Your task to perform on an android device: Open battery settings Image 0: 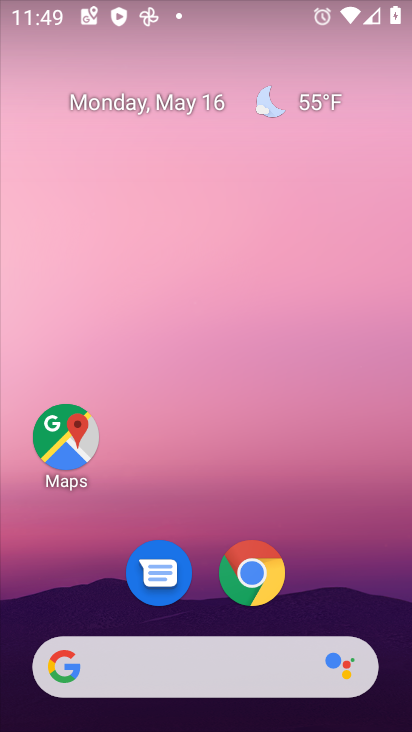
Step 0: drag from (376, 545) to (348, 185)
Your task to perform on an android device: Open battery settings Image 1: 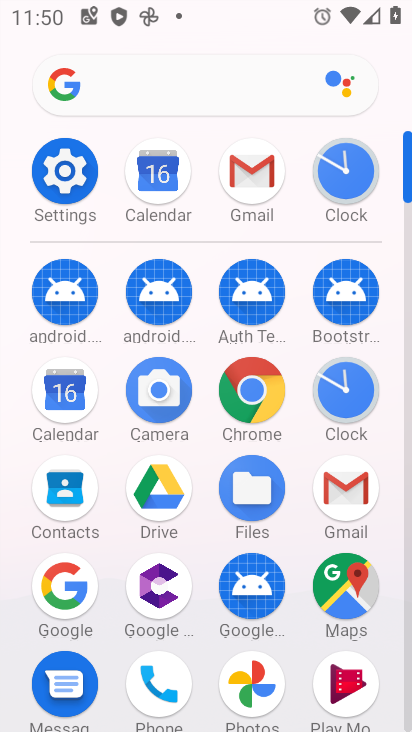
Step 1: click (51, 164)
Your task to perform on an android device: Open battery settings Image 2: 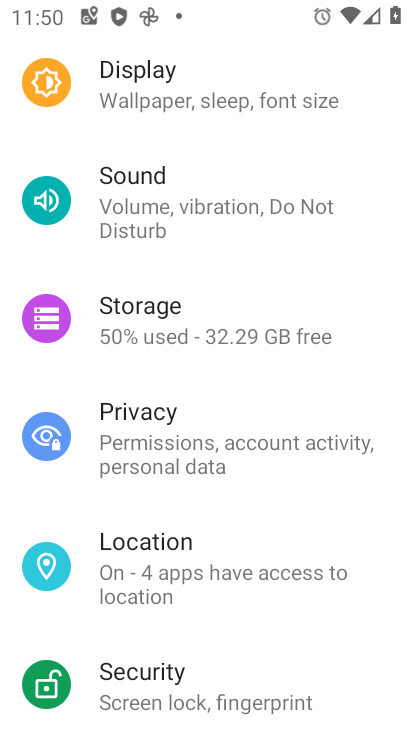
Step 2: drag from (235, 182) to (375, 671)
Your task to perform on an android device: Open battery settings Image 3: 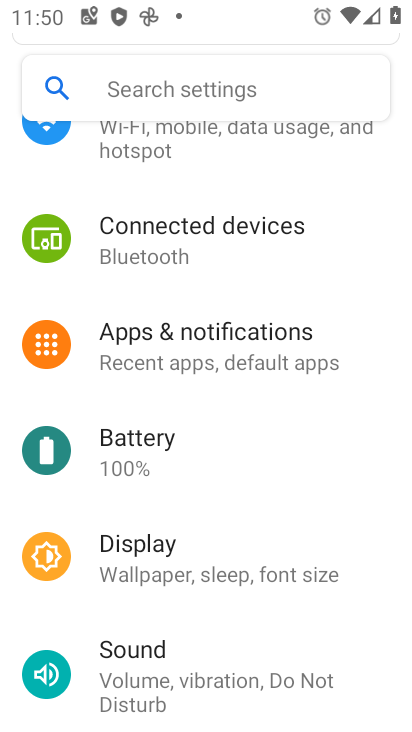
Step 3: click (185, 435)
Your task to perform on an android device: Open battery settings Image 4: 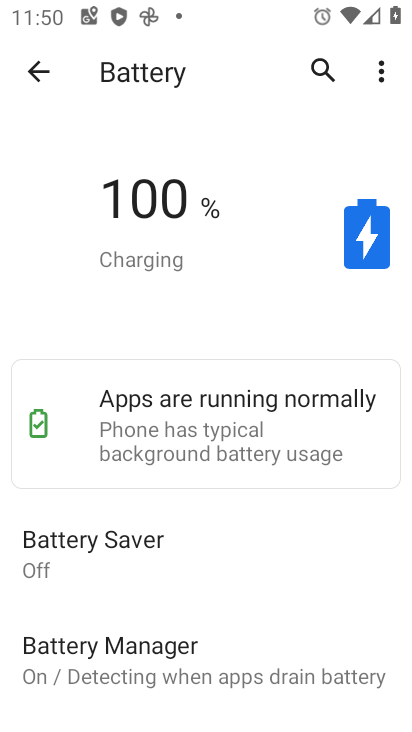
Step 4: task complete